Your task to perform on an android device: Open calendar and show me the first week of next month Image 0: 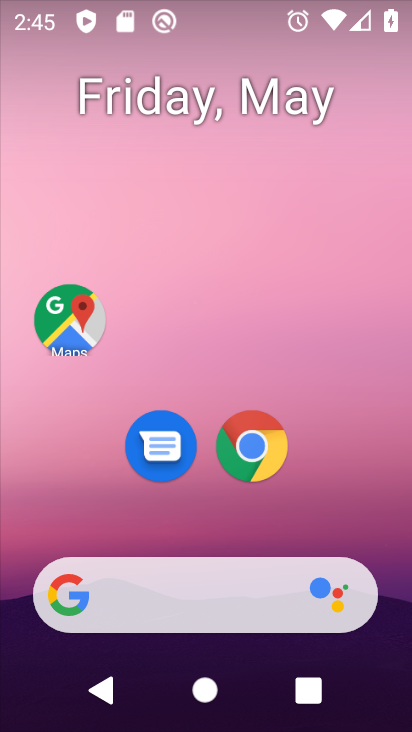
Step 0: drag from (391, 548) to (314, 120)
Your task to perform on an android device: Open calendar and show me the first week of next month Image 1: 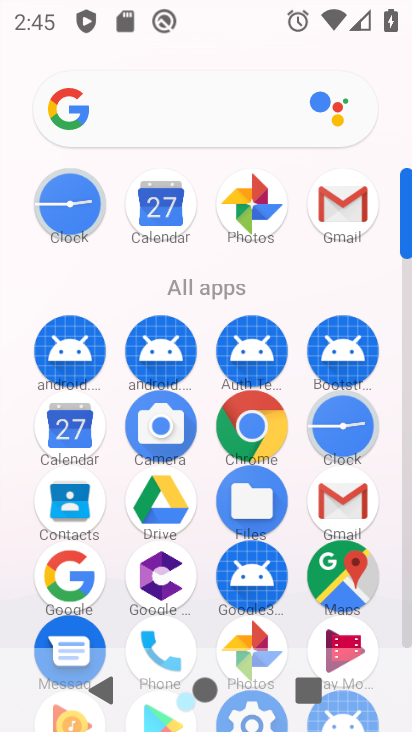
Step 1: click (168, 200)
Your task to perform on an android device: Open calendar and show me the first week of next month Image 2: 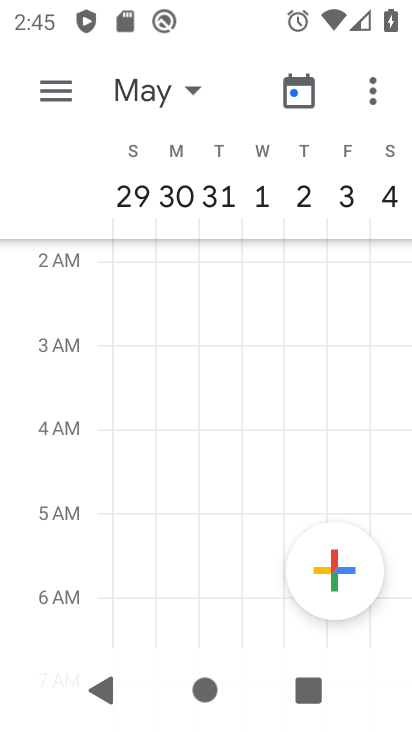
Step 2: click (145, 87)
Your task to perform on an android device: Open calendar and show me the first week of next month Image 3: 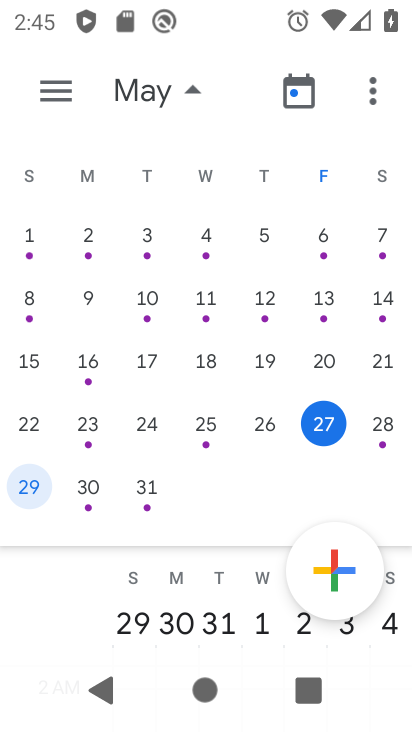
Step 3: drag from (398, 316) to (20, 315)
Your task to perform on an android device: Open calendar and show me the first week of next month Image 4: 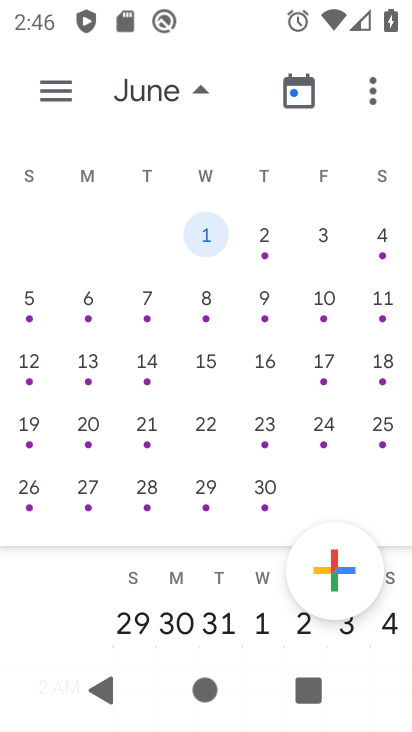
Step 4: click (218, 235)
Your task to perform on an android device: Open calendar and show me the first week of next month Image 5: 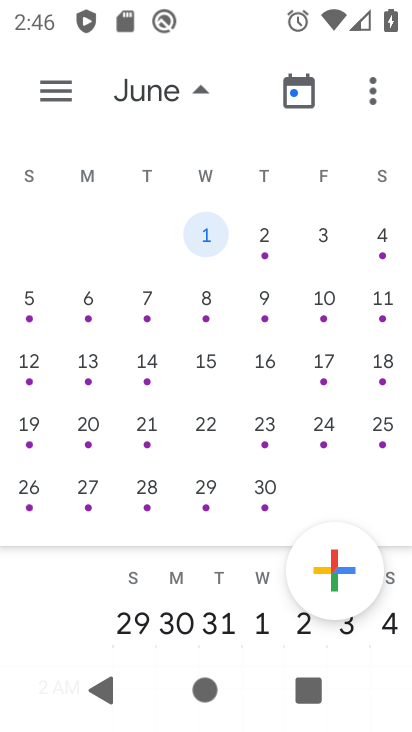
Step 5: click (179, 98)
Your task to perform on an android device: Open calendar and show me the first week of next month Image 6: 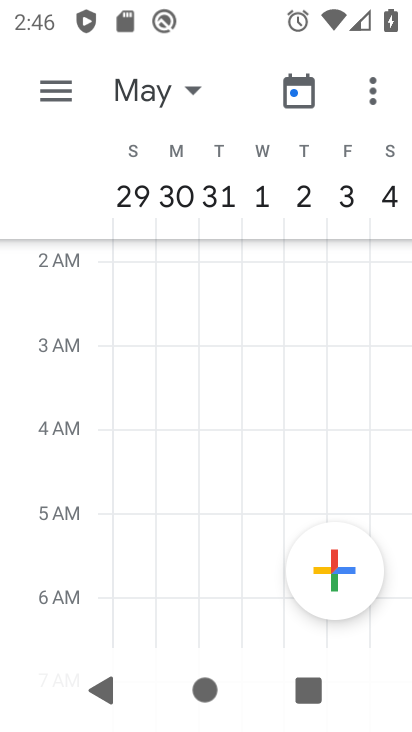
Step 6: task complete